Your task to perform on an android device: open app "Adobe Acrobat Reader" (install if not already installed) Image 0: 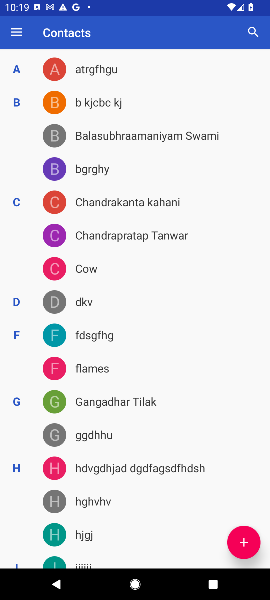
Step 0: press home button
Your task to perform on an android device: open app "Adobe Acrobat Reader" (install if not already installed) Image 1: 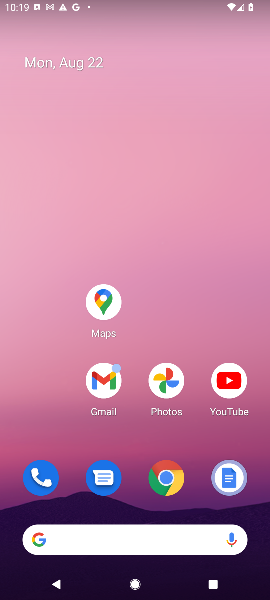
Step 1: drag from (134, 505) to (134, 56)
Your task to perform on an android device: open app "Adobe Acrobat Reader" (install if not already installed) Image 2: 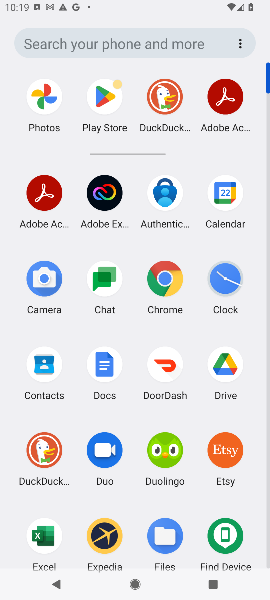
Step 2: click (43, 182)
Your task to perform on an android device: open app "Adobe Acrobat Reader" (install if not already installed) Image 3: 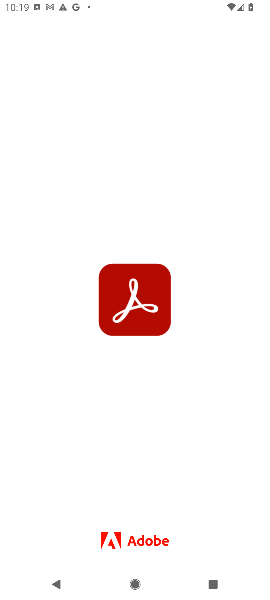
Step 3: task complete